Your task to perform on an android device: Clear the shopping cart on costco.com. Search for razer kraken on costco.com, select the first entry, add it to the cart, then select checkout. Image 0: 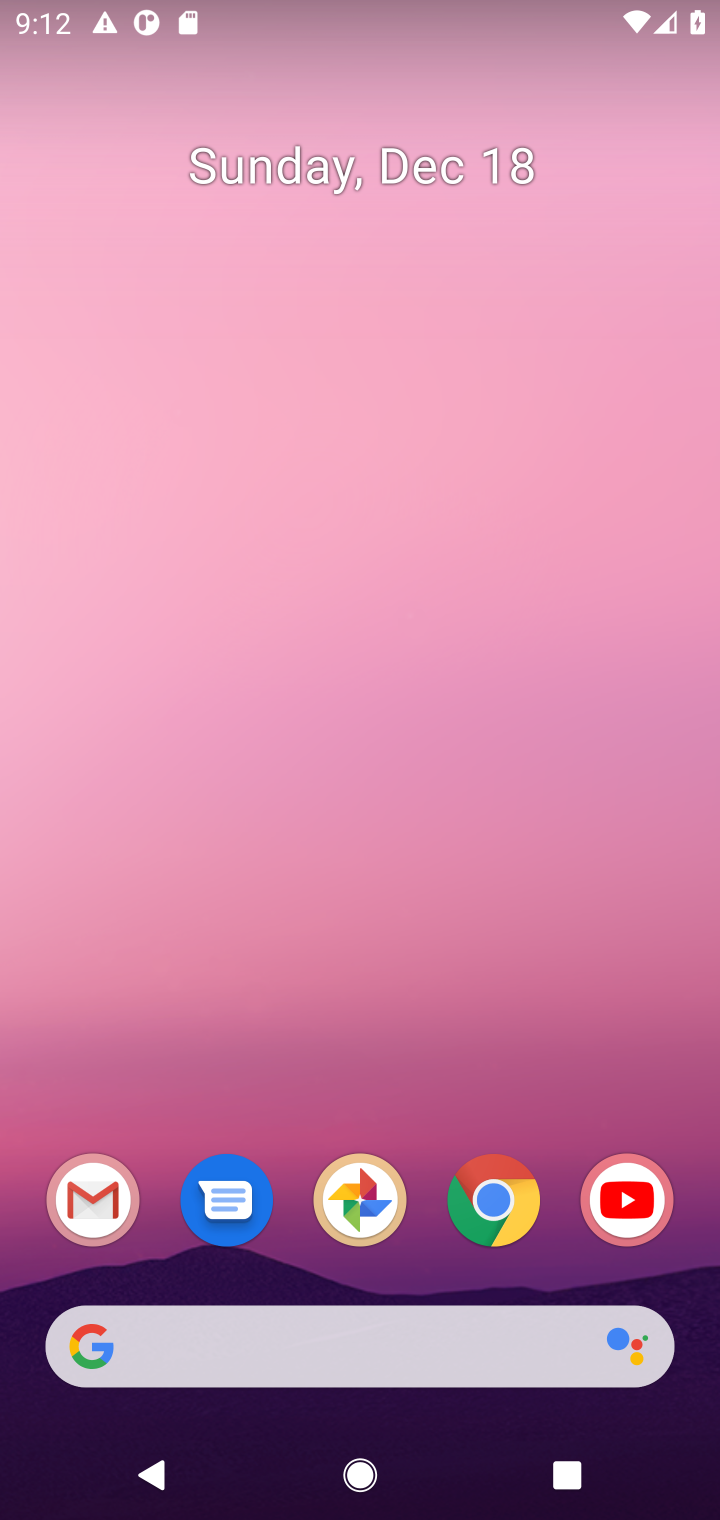
Step 0: click (515, 1207)
Your task to perform on an android device: Clear the shopping cart on costco.com. Search for razer kraken on costco.com, select the first entry, add it to the cart, then select checkout. Image 1: 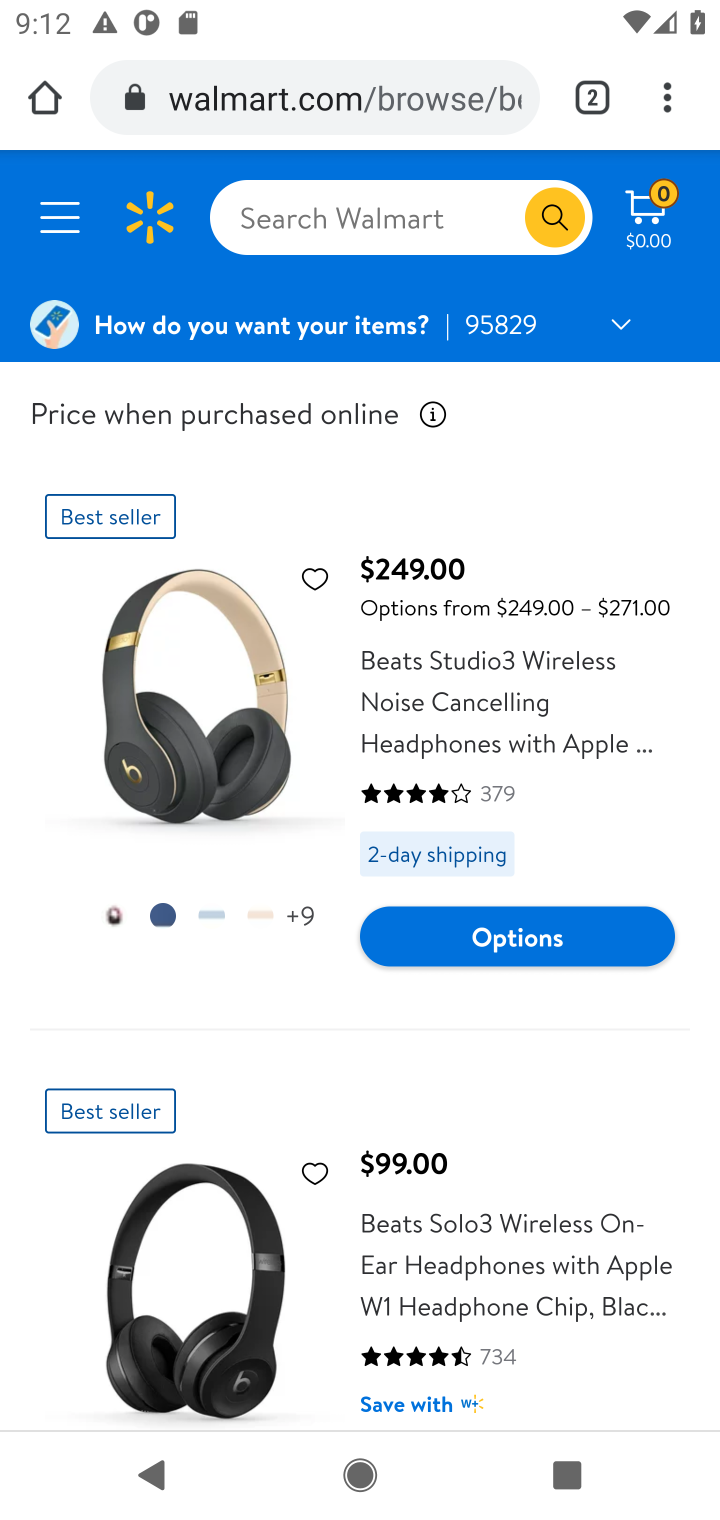
Step 1: click (300, 103)
Your task to perform on an android device: Clear the shopping cart on costco.com. Search for razer kraken on costco.com, select the first entry, add it to the cart, then select checkout. Image 2: 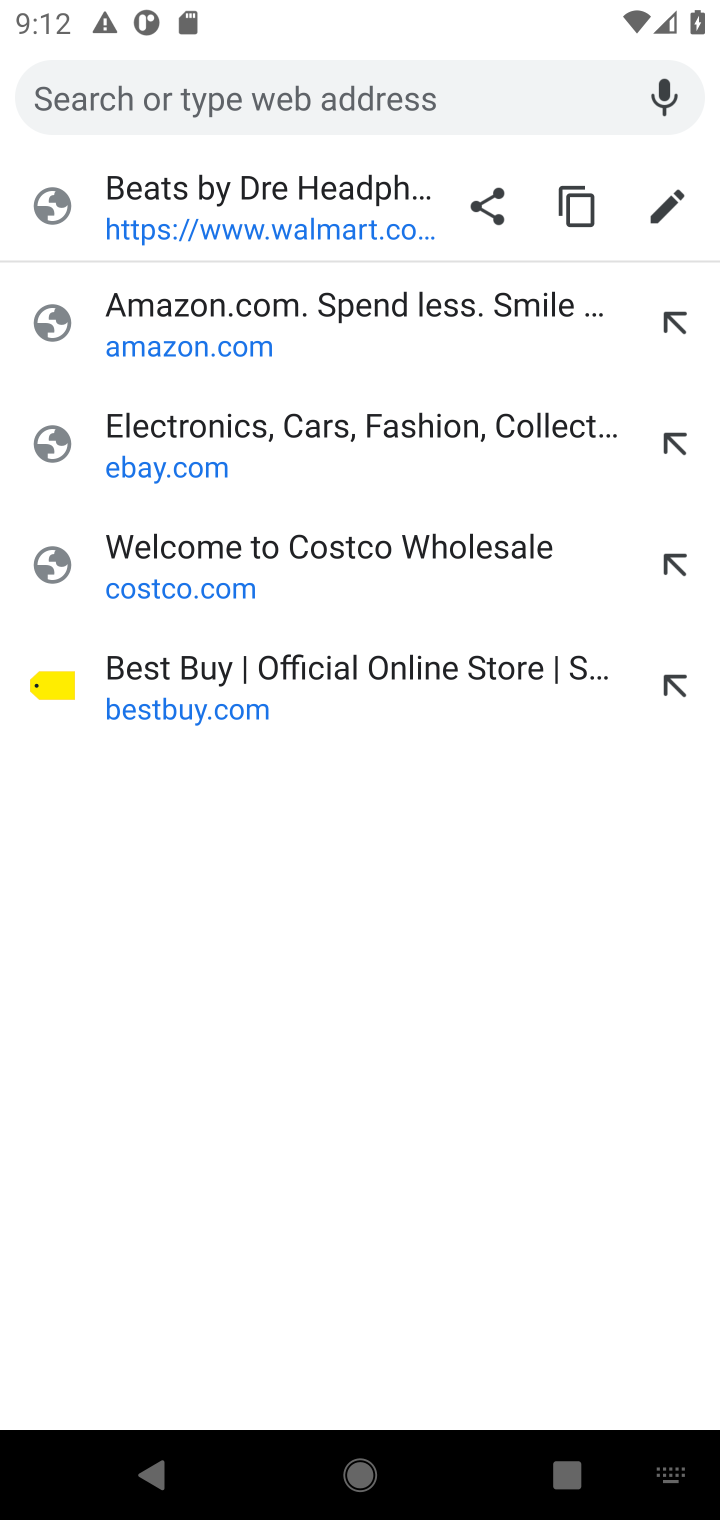
Step 2: click (176, 569)
Your task to perform on an android device: Clear the shopping cart on costco.com. Search for razer kraken on costco.com, select the first entry, add it to the cart, then select checkout. Image 3: 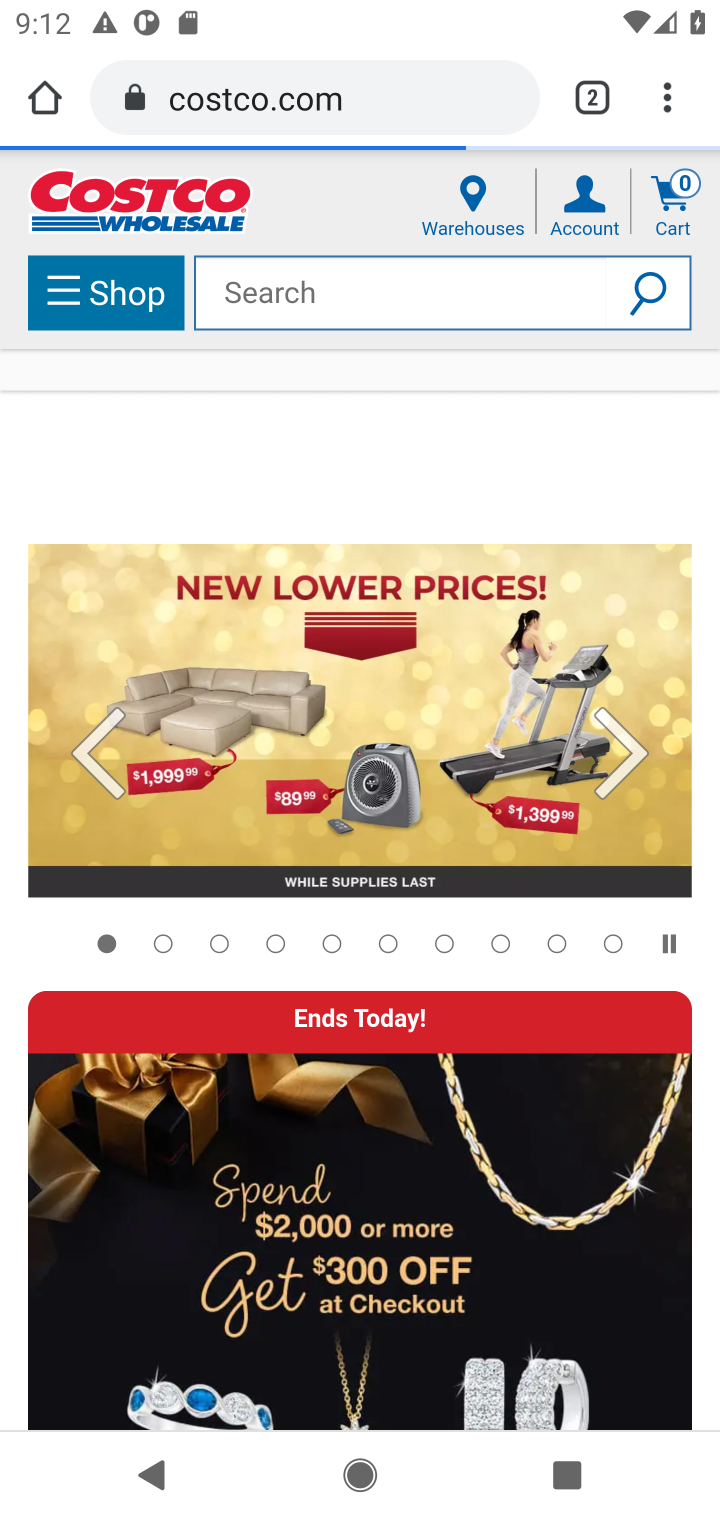
Step 3: click (676, 204)
Your task to perform on an android device: Clear the shopping cart on costco.com. Search for razer kraken on costco.com, select the first entry, add it to the cart, then select checkout. Image 4: 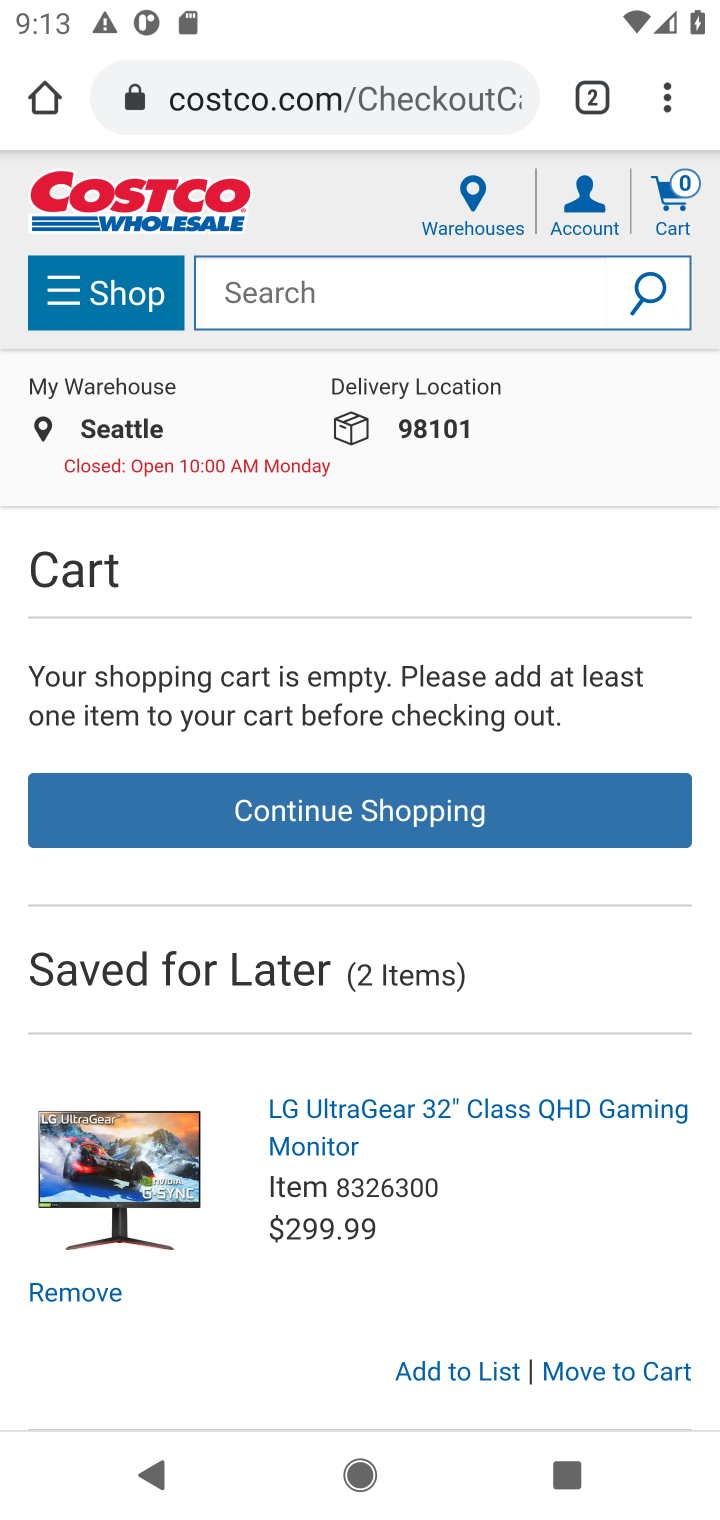
Step 4: click (250, 294)
Your task to perform on an android device: Clear the shopping cart on costco.com. Search for razer kraken on costco.com, select the first entry, add it to the cart, then select checkout. Image 5: 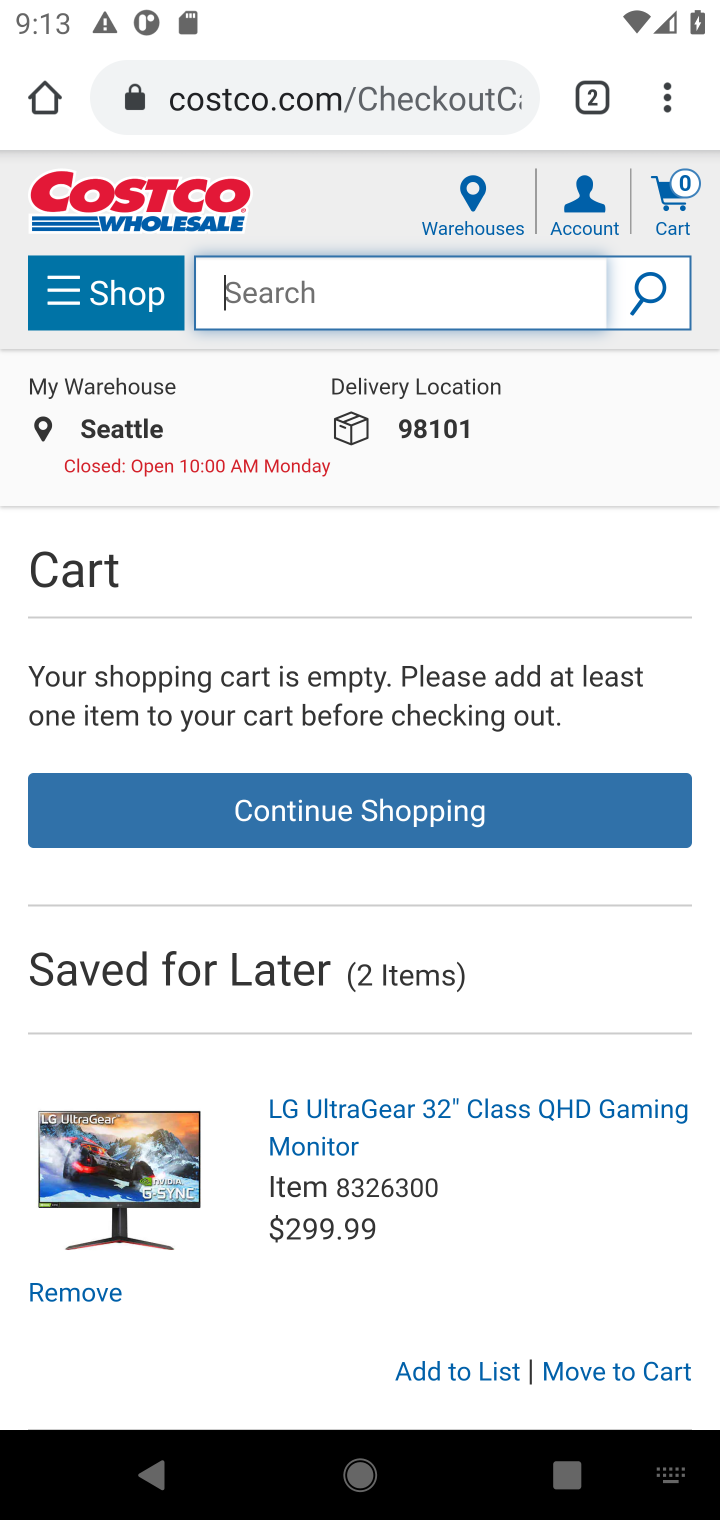
Step 5: type "razer kraken"
Your task to perform on an android device: Clear the shopping cart on costco.com. Search for razer kraken on costco.com, select the first entry, add it to the cart, then select checkout. Image 6: 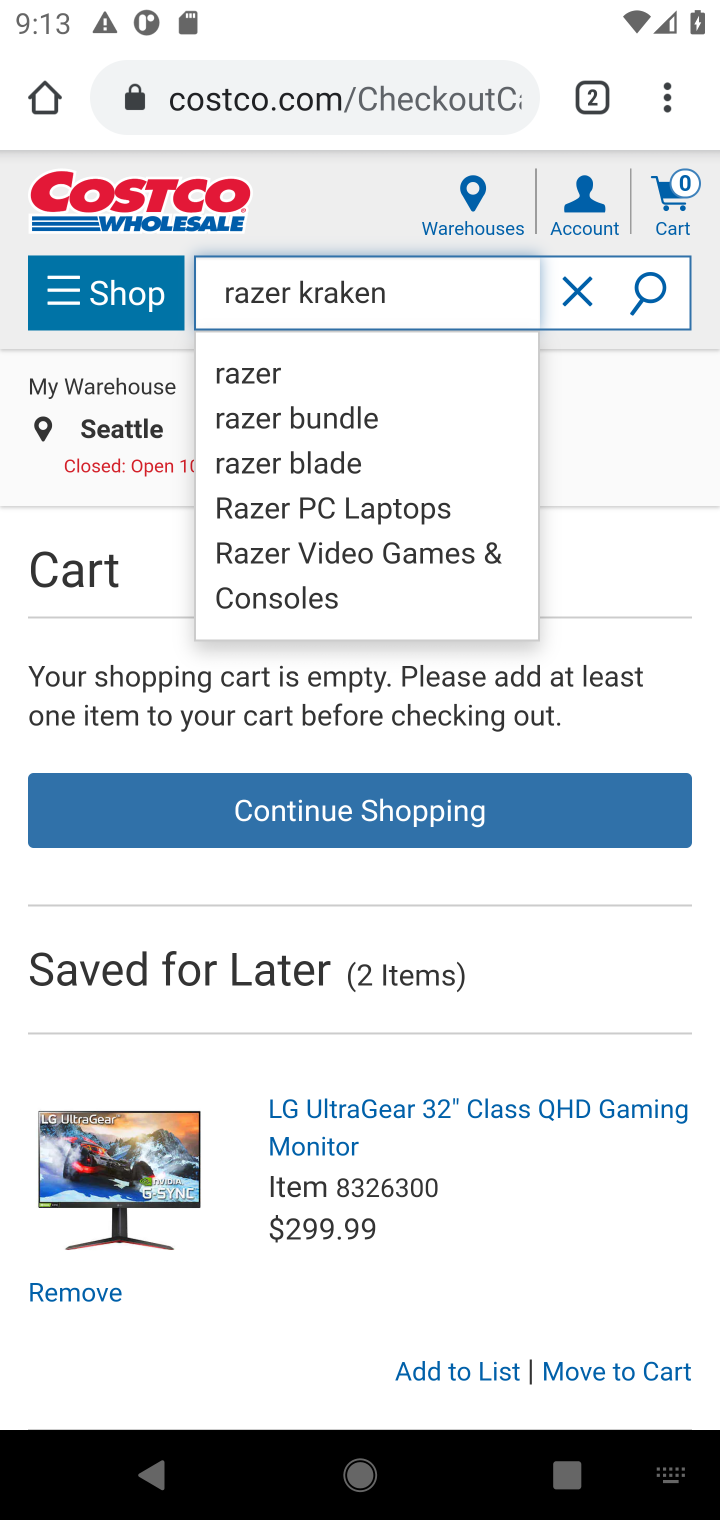
Step 6: click (672, 296)
Your task to perform on an android device: Clear the shopping cart on costco.com. Search for razer kraken on costco.com, select the first entry, add it to the cart, then select checkout. Image 7: 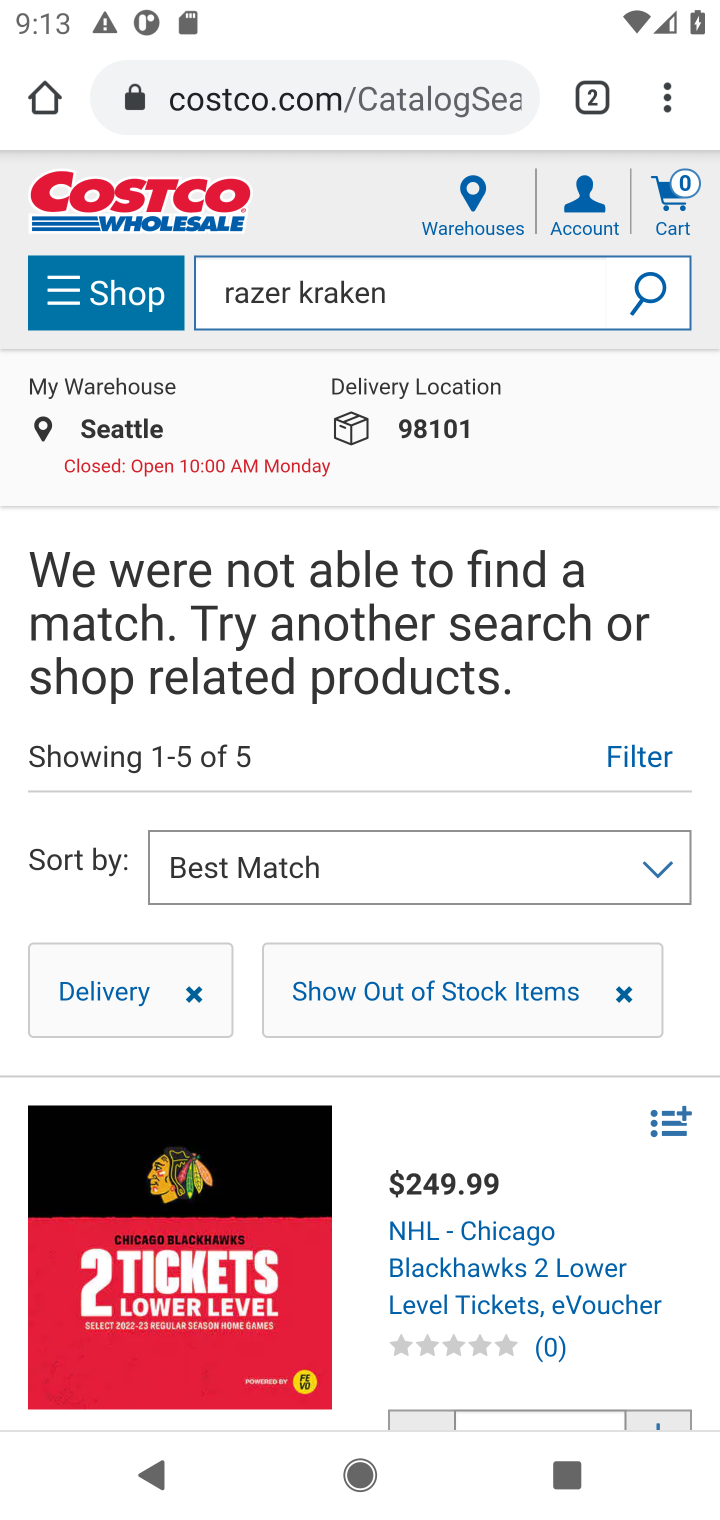
Step 7: task complete